Your task to perform on an android device: Check the news Image 0: 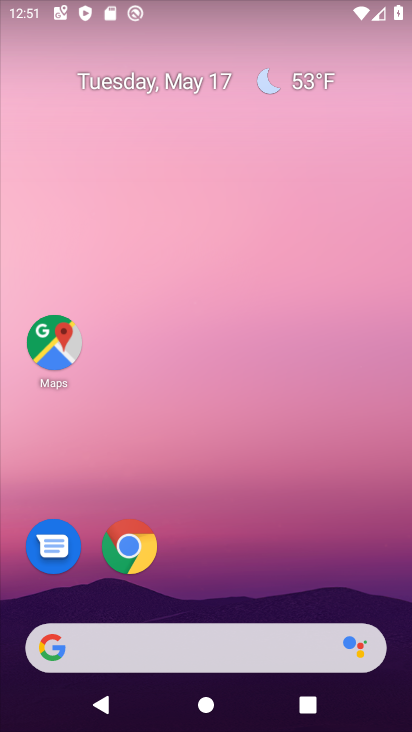
Step 0: drag from (214, 586) to (152, 197)
Your task to perform on an android device: Check the news Image 1: 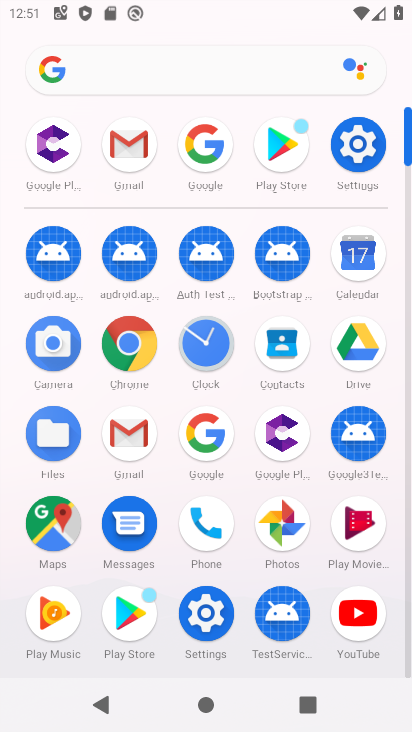
Step 1: click (187, 417)
Your task to perform on an android device: Check the news Image 2: 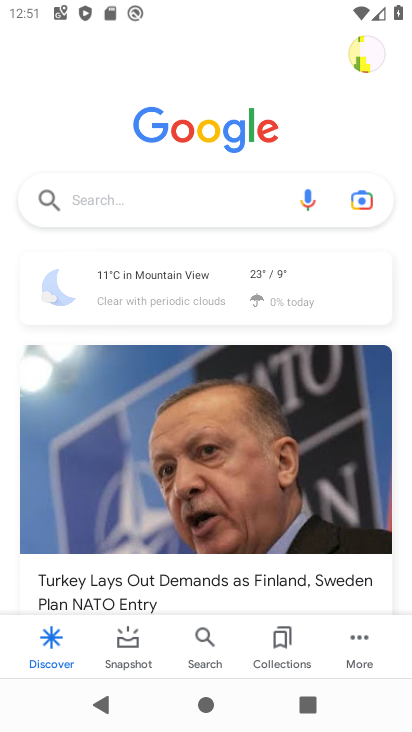
Step 2: click (149, 286)
Your task to perform on an android device: Check the news Image 3: 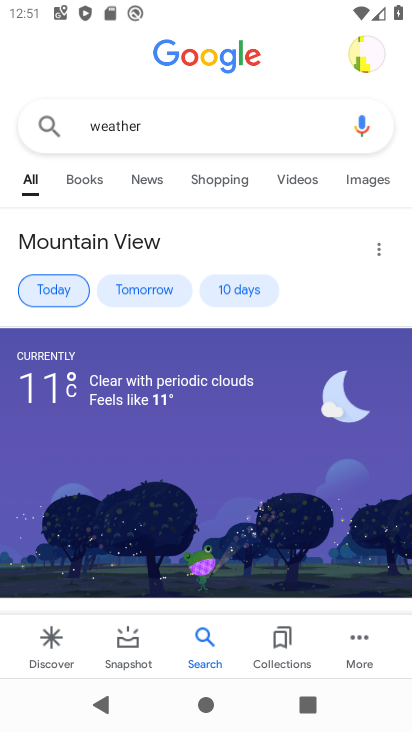
Step 3: click (151, 184)
Your task to perform on an android device: Check the news Image 4: 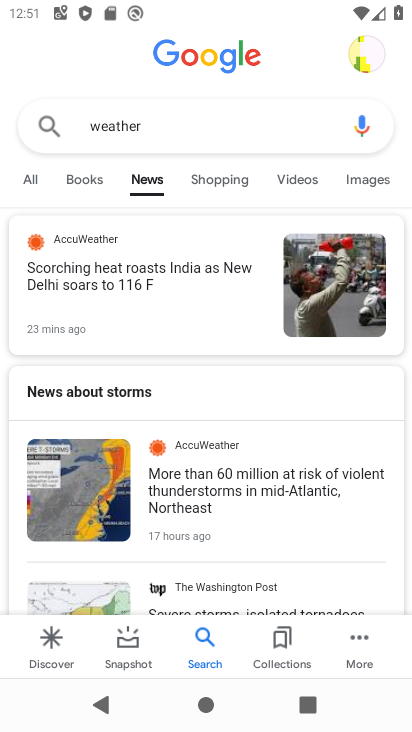
Step 4: task complete